Your task to perform on an android device: allow cookies in the chrome app Image 0: 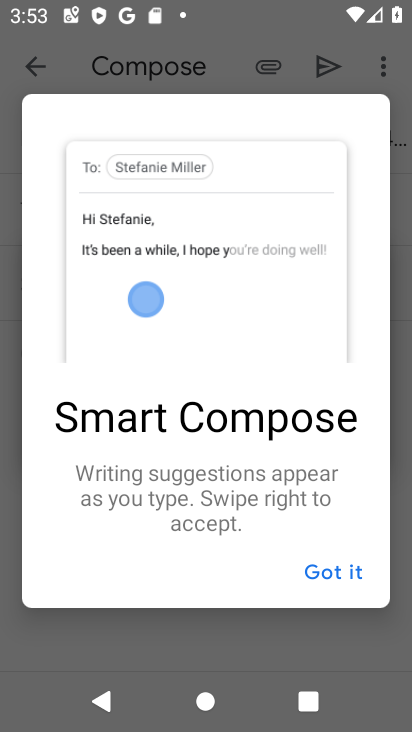
Step 0: press home button
Your task to perform on an android device: allow cookies in the chrome app Image 1: 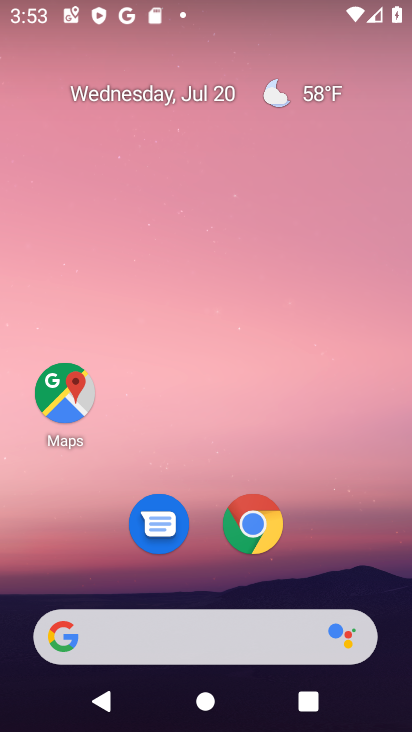
Step 1: click (253, 515)
Your task to perform on an android device: allow cookies in the chrome app Image 2: 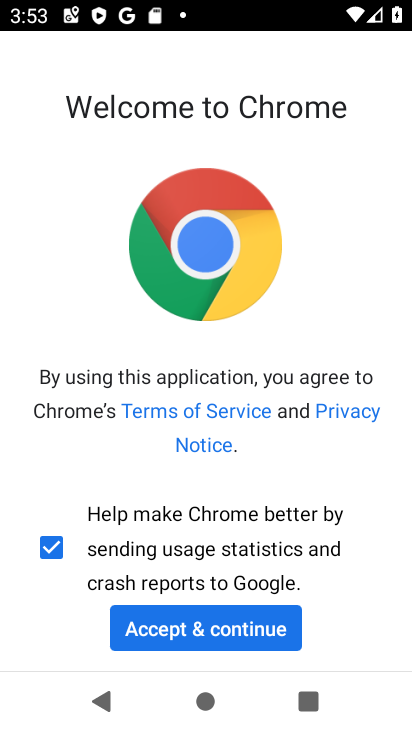
Step 2: click (264, 623)
Your task to perform on an android device: allow cookies in the chrome app Image 3: 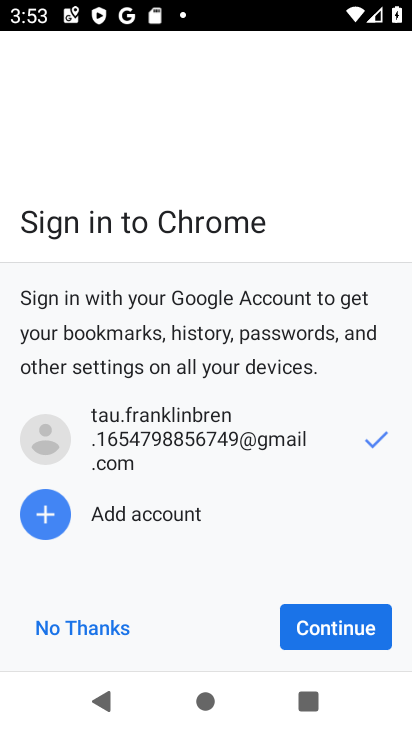
Step 3: click (305, 623)
Your task to perform on an android device: allow cookies in the chrome app Image 4: 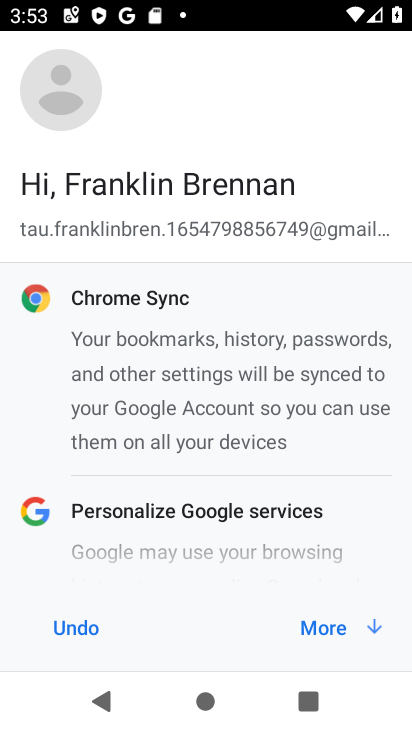
Step 4: click (305, 623)
Your task to perform on an android device: allow cookies in the chrome app Image 5: 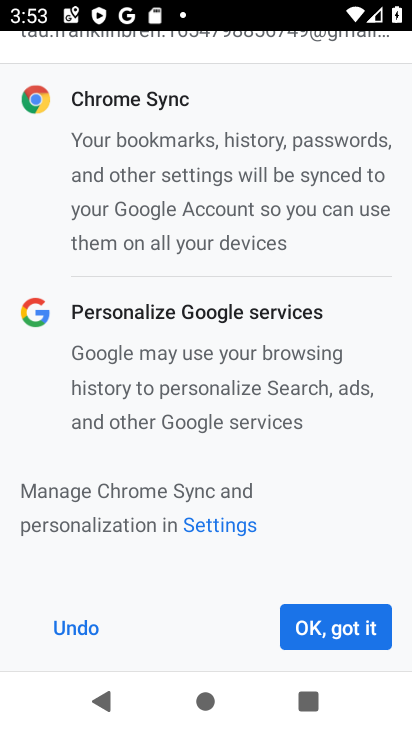
Step 5: click (305, 623)
Your task to perform on an android device: allow cookies in the chrome app Image 6: 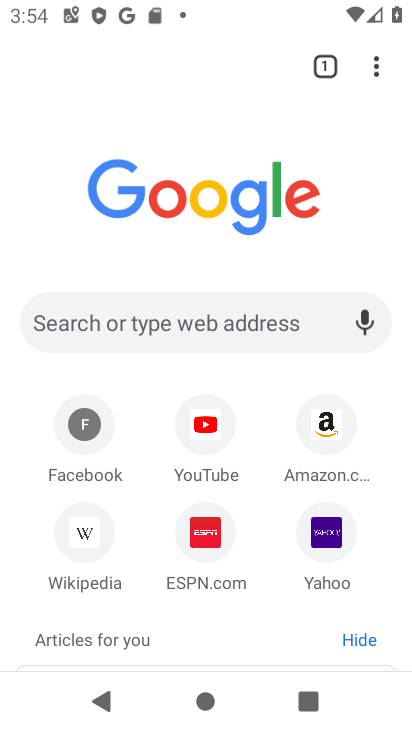
Step 6: click (372, 67)
Your task to perform on an android device: allow cookies in the chrome app Image 7: 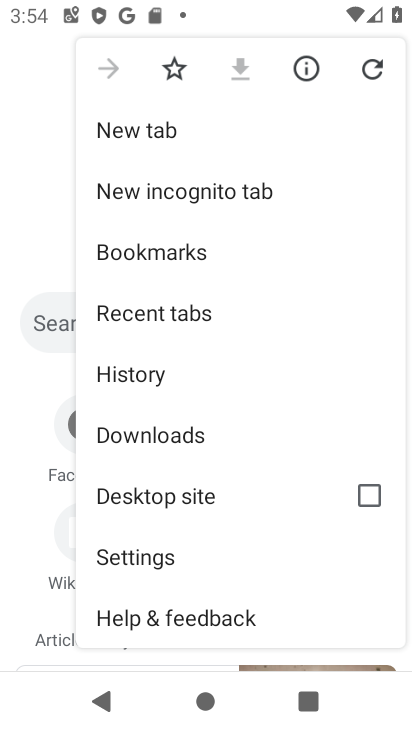
Step 7: click (170, 565)
Your task to perform on an android device: allow cookies in the chrome app Image 8: 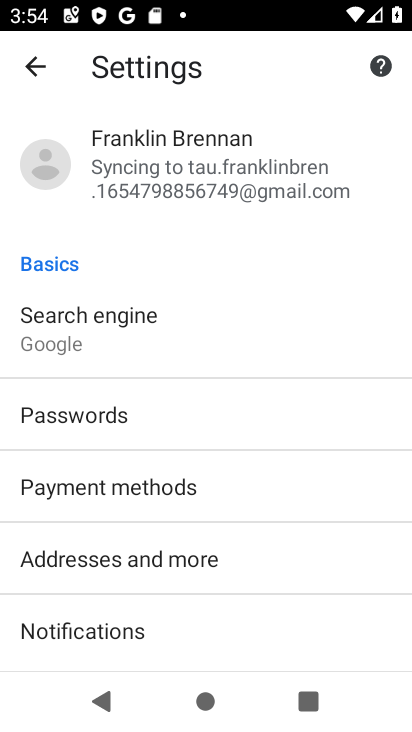
Step 8: drag from (249, 625) to (287, 152)
Your task to perform on an android device: allow cookies in the chrome app Image 9: 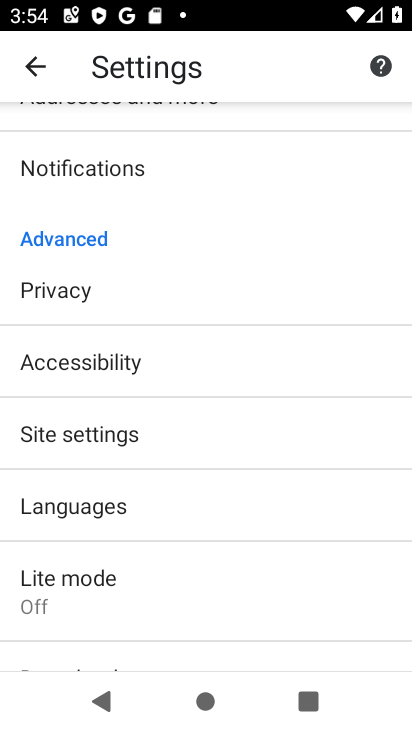
Step 9: click (135, 429)
Your task to perform on an android device: allow cookies in the chrome app Image 10: 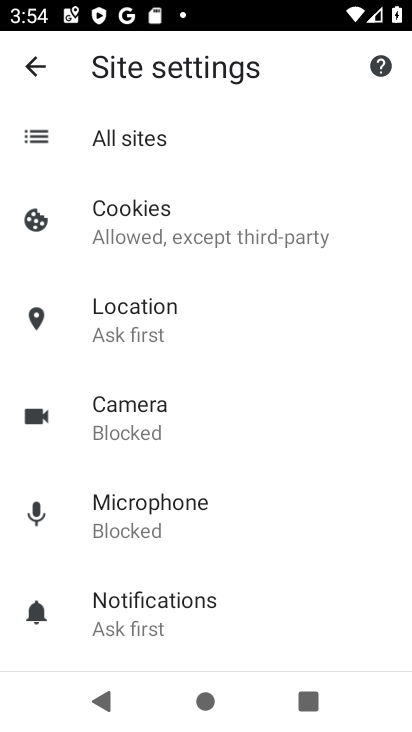
Step 10: click (206, 229)
Your task to perform on an android device: allow cookies in the chrome app Image 11: 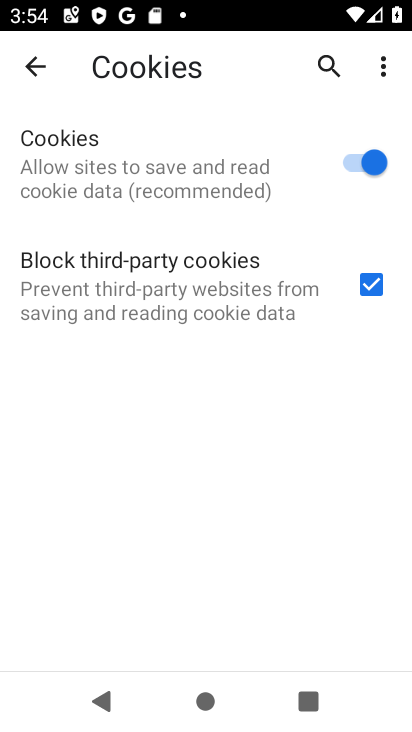
Step 11: task complete